Your task to perform on an android device: Show me the alarms in the clock app Image 0: 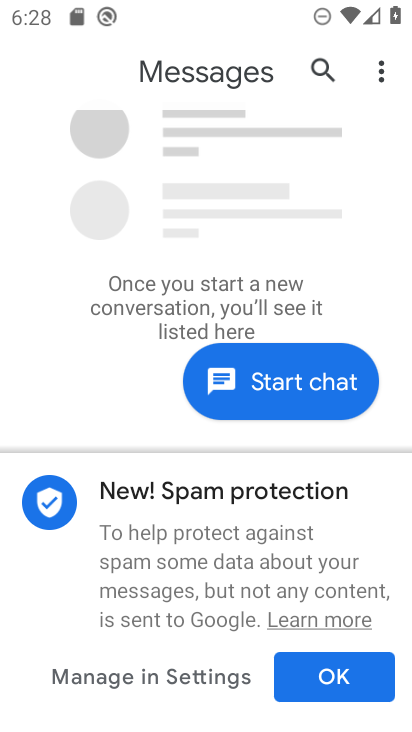
Step 0: press home button
Your task to perform on an android device: Show me the alarms in the clock app Image 1: 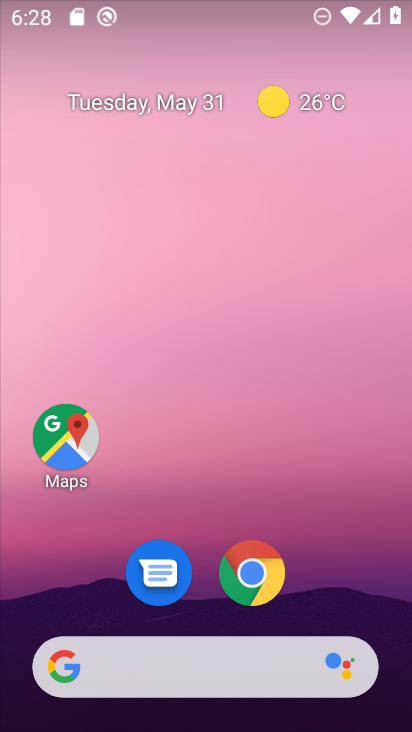
Step 1: drag from (402, 662) to (300, 35)
Your task to perform on an android device: Show me the alarms in the clock app Image 2: 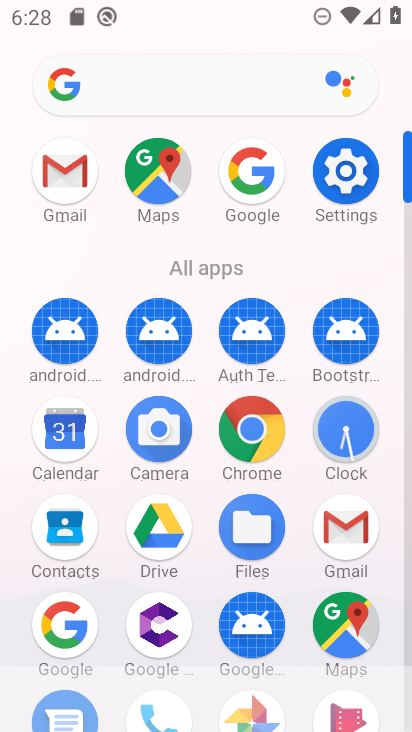
Step 2: click (352, 444)
Your task to perform on an android device: Show me the alarms in the clock app Image 3: 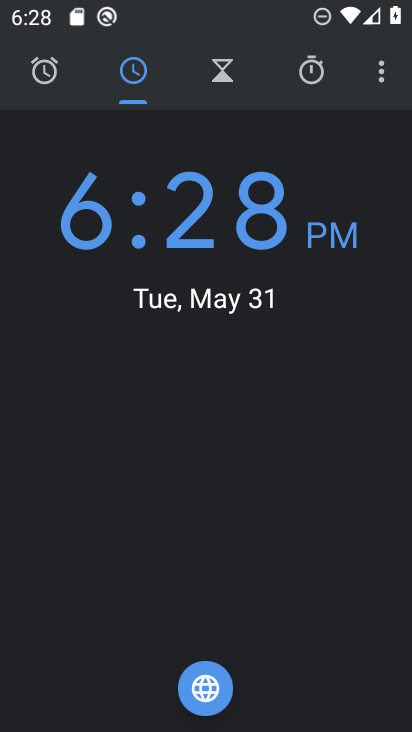
Step 3: click (57, 73)
Your task to perform on an android device: Show me the alarms in the clock app Image 4: 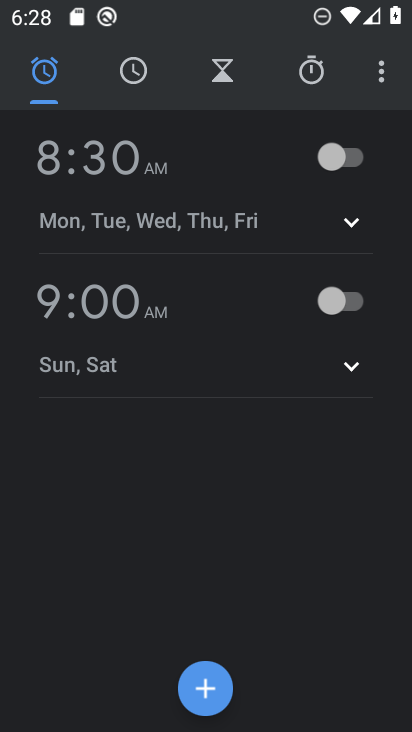
Step 4: task complete